Your task to perform on an android device: add a contact Image 0: 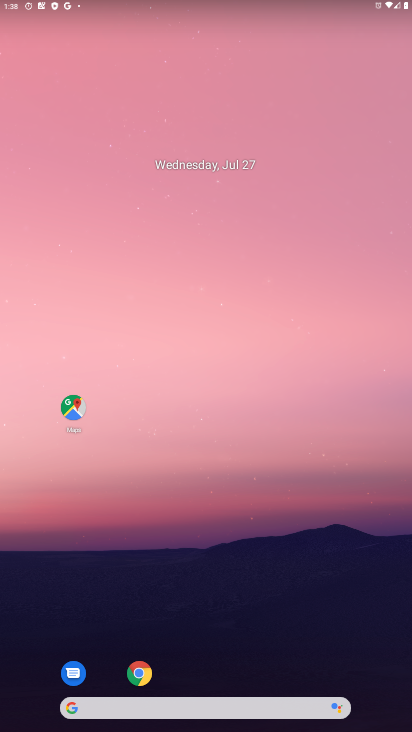
Step 0: drag from (262, 658) to (253, 25)
Your task to perform on an android device: add a contact Image 1: 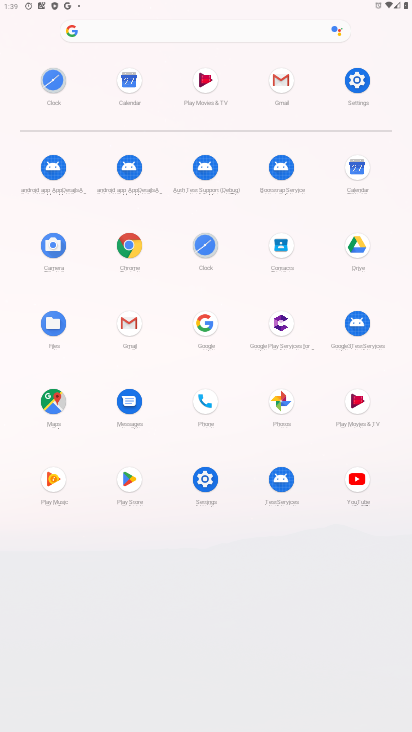
Step 1: click (277, 249)
Your task to perform on an android device: add a contact Image 2: 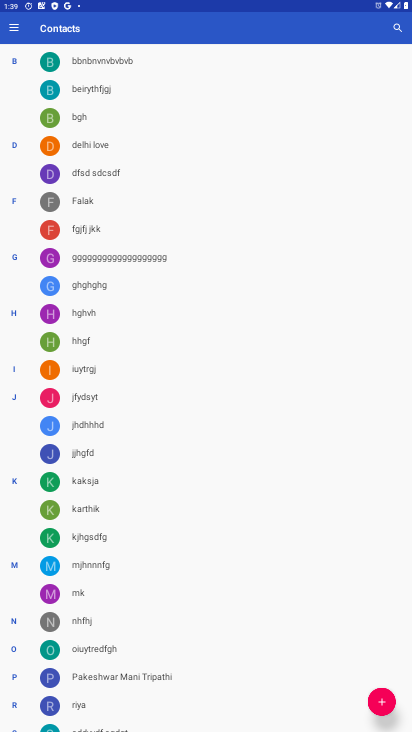
Step 2: click (382, 699)
Your task to perform on an android device: add a contact Image 3: 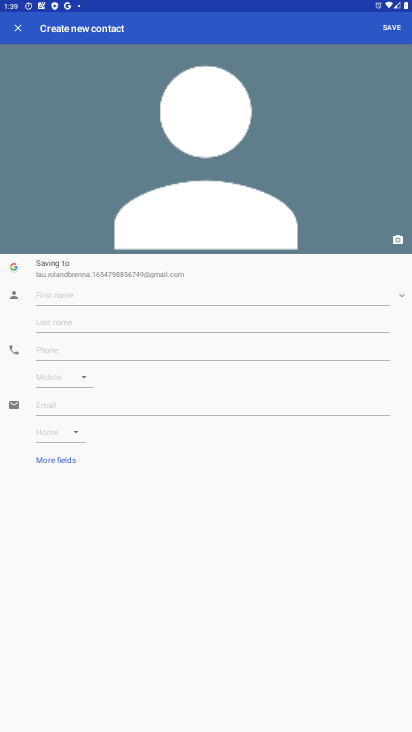
Step 3: click (89, 297)
Your task to perform on an android device: add a contact Image 4: 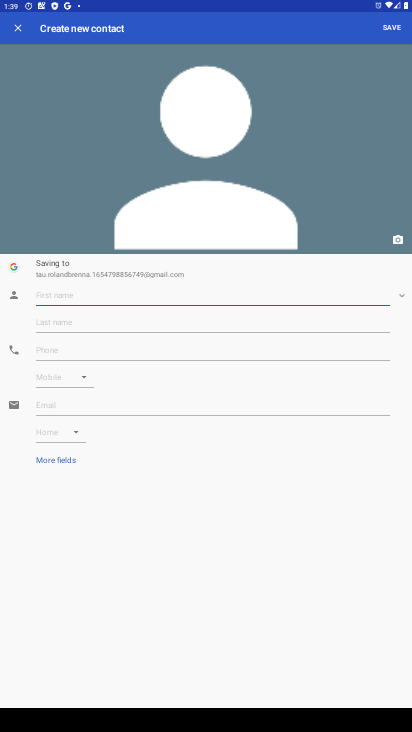
Step 4: type "tim"
Your task to perform on an android device: add a contact Image 5: 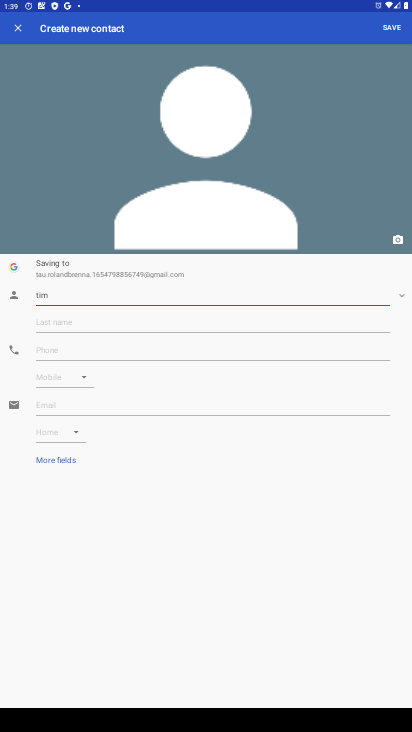
Step 5: click (61, 352)
Your task to perform on an android device: add a contact Image 6: 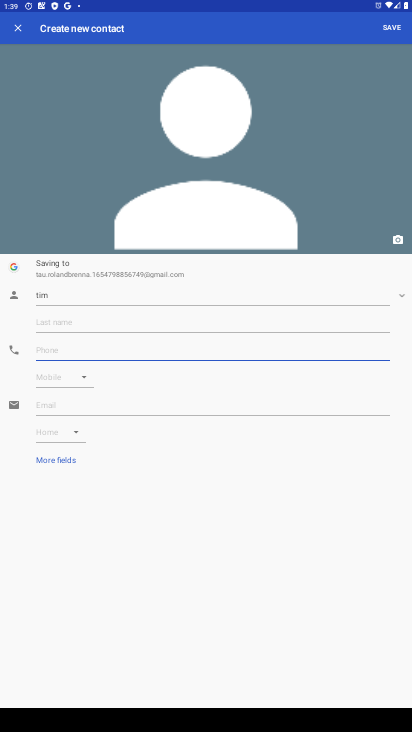
Step 6: type "765544376"
Your task to perform on an android device: add a contact Image 7: 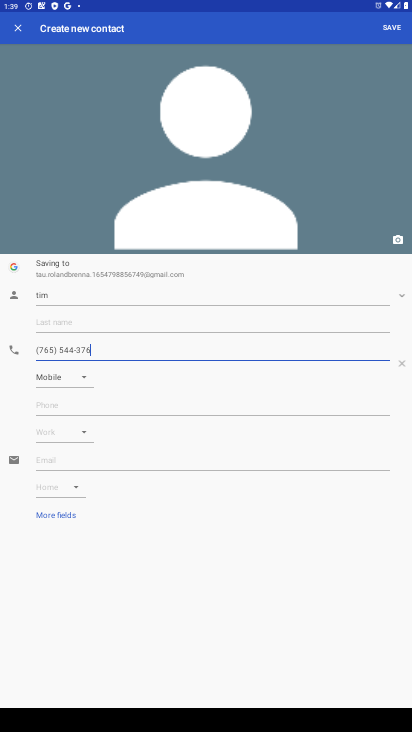
Step 7: click (387, 33)
Your task to perform on an android device: add a contact Image 8: 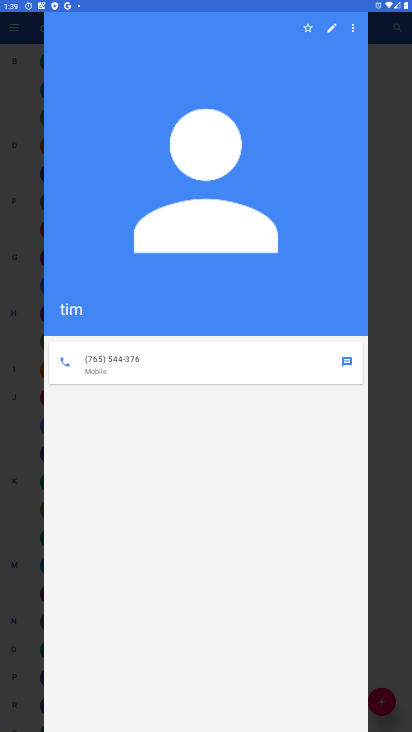
Step 8: task complete